Your task to perform on an android device: turn off picture-in-picture Image 0: 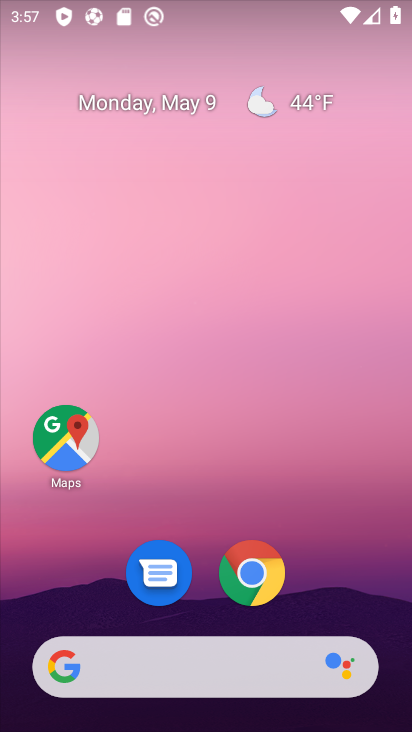
Step 0: click (259, 580)
Your task to perform on an android device: turn off picture-in-picture Image 1: 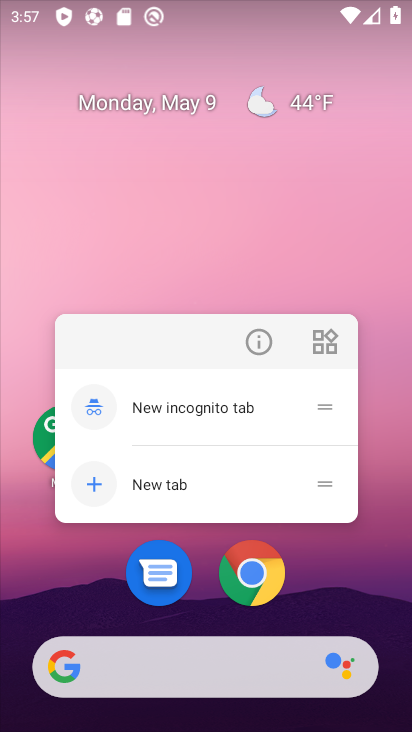
Step 1: click (261, 334)
Your task to perform on an android device: turn off picture-in-picture Image 2: 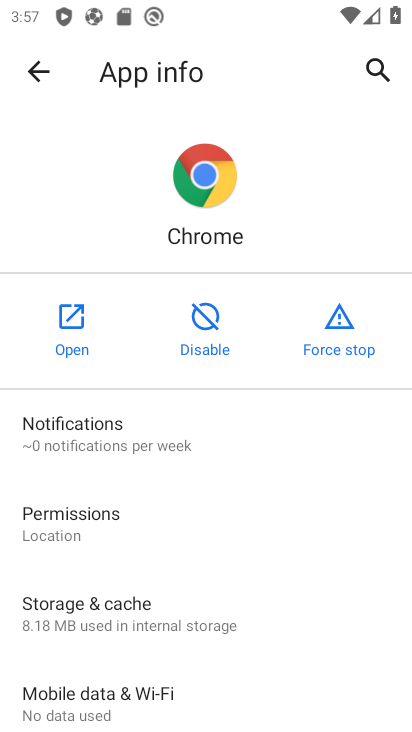
Step 2: drag from (197, 592) to (134, 211)
Your task to perform on an android device: turn off picture-in-picture Image 3: 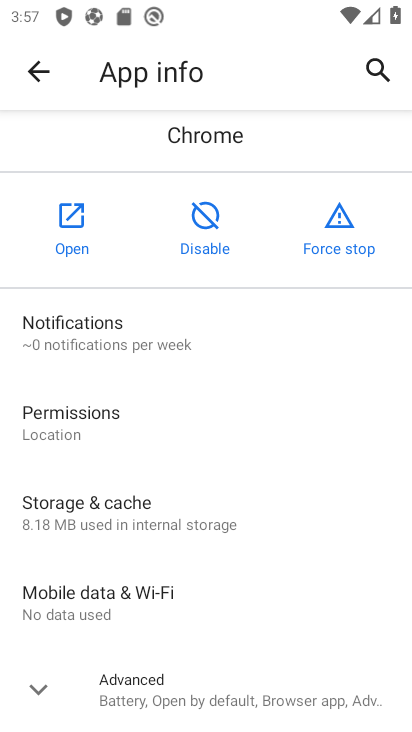
Step 3: drag from (187, 668) to (135, 307)
Your task to perform on an android device: turn off picture-in-picture Image 4: 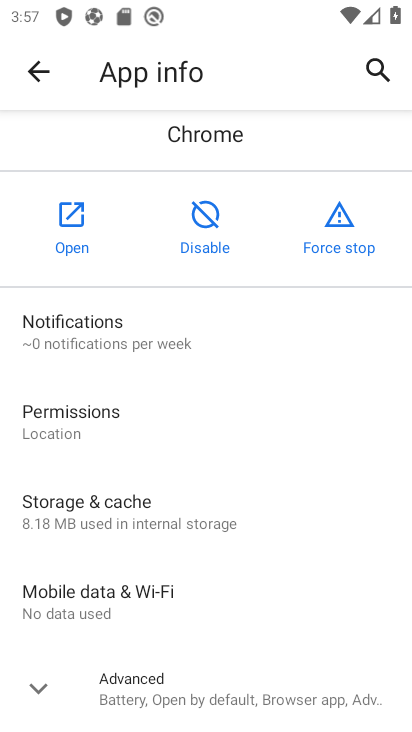
Step 4: click (159, 680)
Your task to perform on an android device: turn off picture-in-picture Image 5: 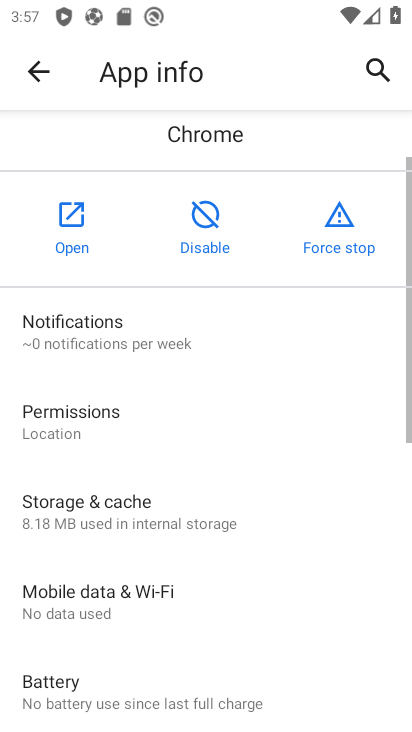
Step 5: drag from (204, 653) to (168, 115)
Your task to perform on an android device: turn off picture-in-picture Image 6: 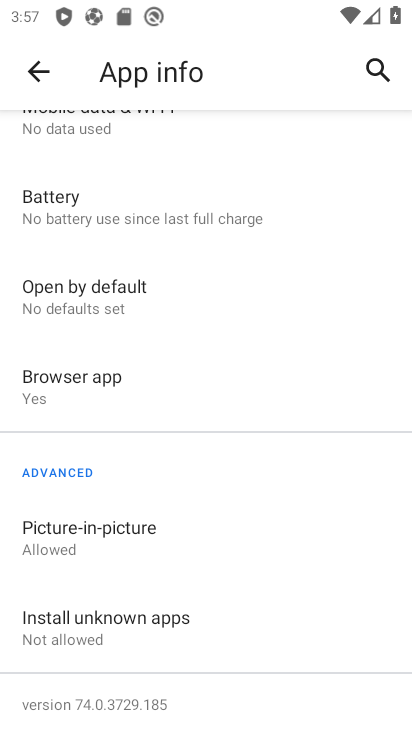
Step 6: click (76, 547)
Your task to perform on an android device: turn off picture-in-picture Image 7: 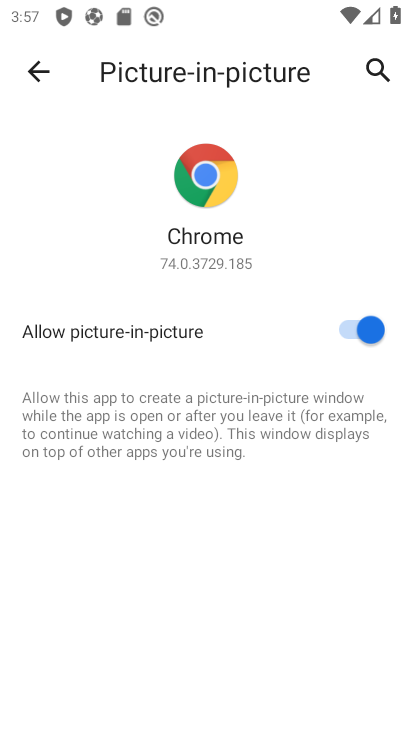
Step 7: click (357, 332)
Your task to perform on an android device: turn off picture-in-picture Image 8: 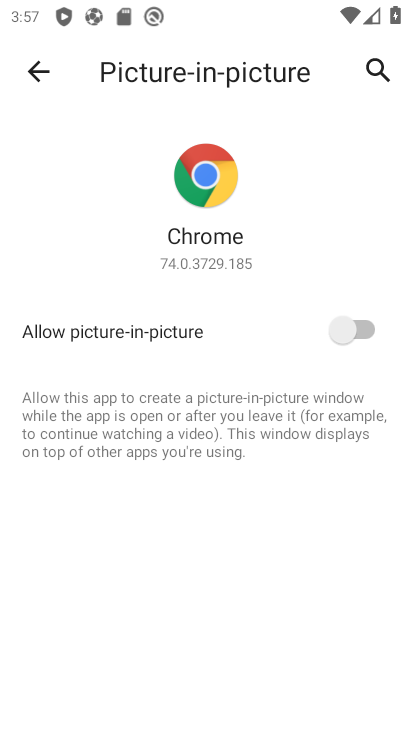
Step 8: task complete